Your task to perform on an android device: clear history in the chrome app Image 0: 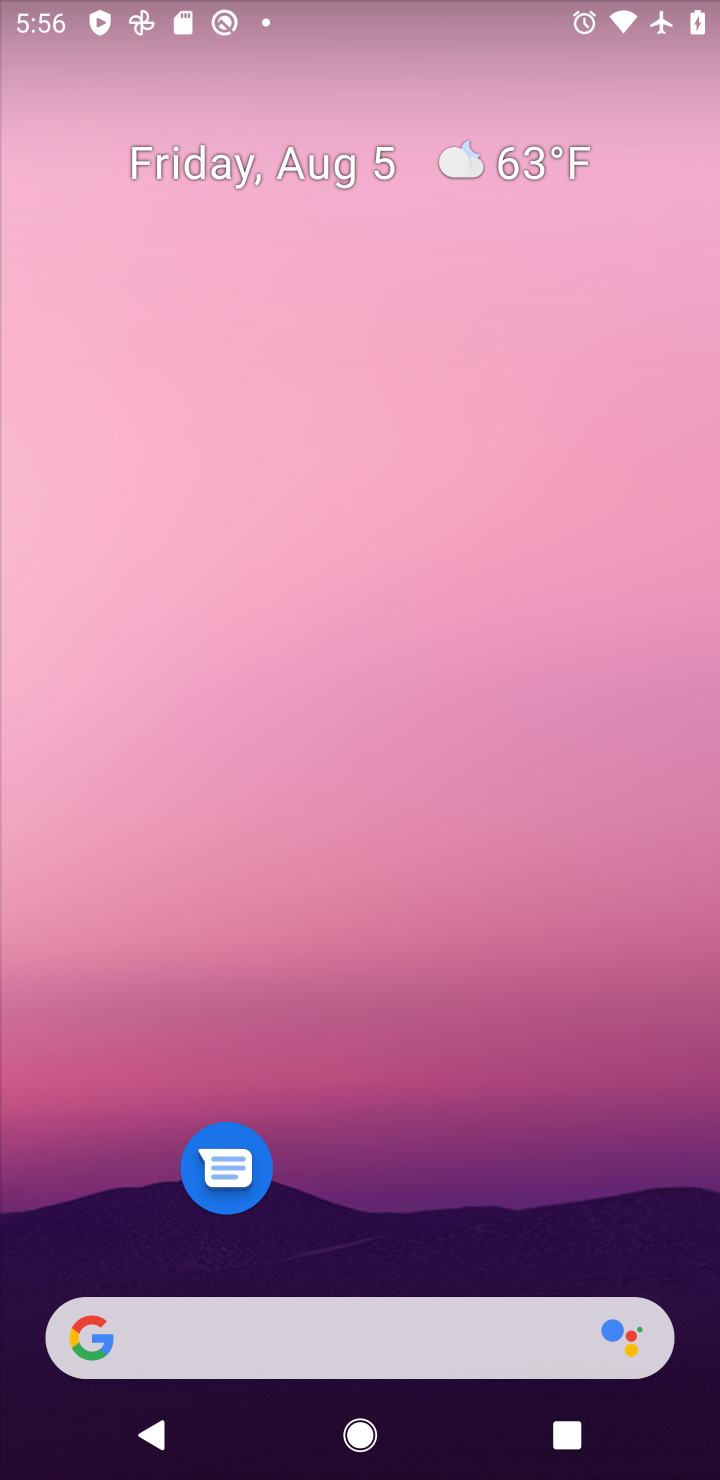
Step 0: press home button
Your task to perform on an android device: clear history in the chrome app Image 1: 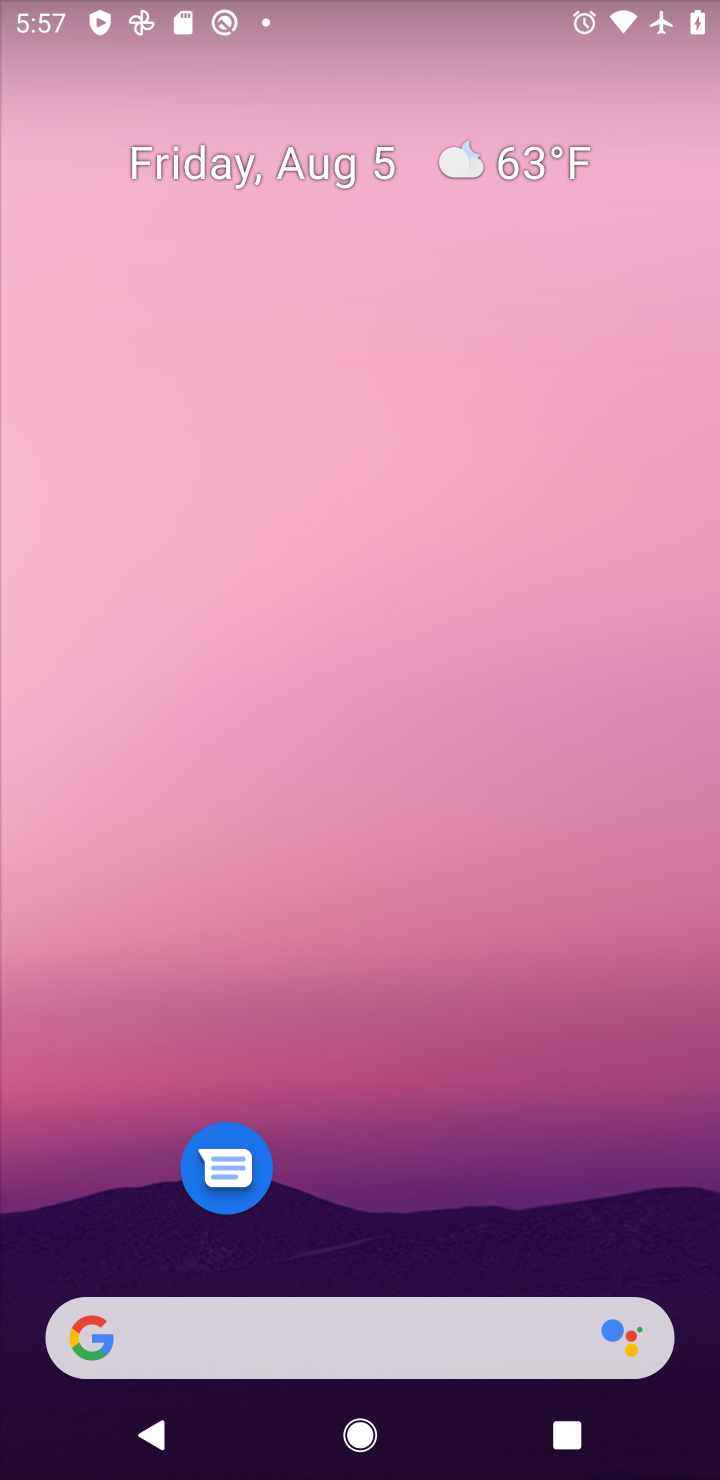
Step 1: drag from (394, 1116) to (407, 96)
Your task to perform on an android device: clear history in the chrome app Image 2: 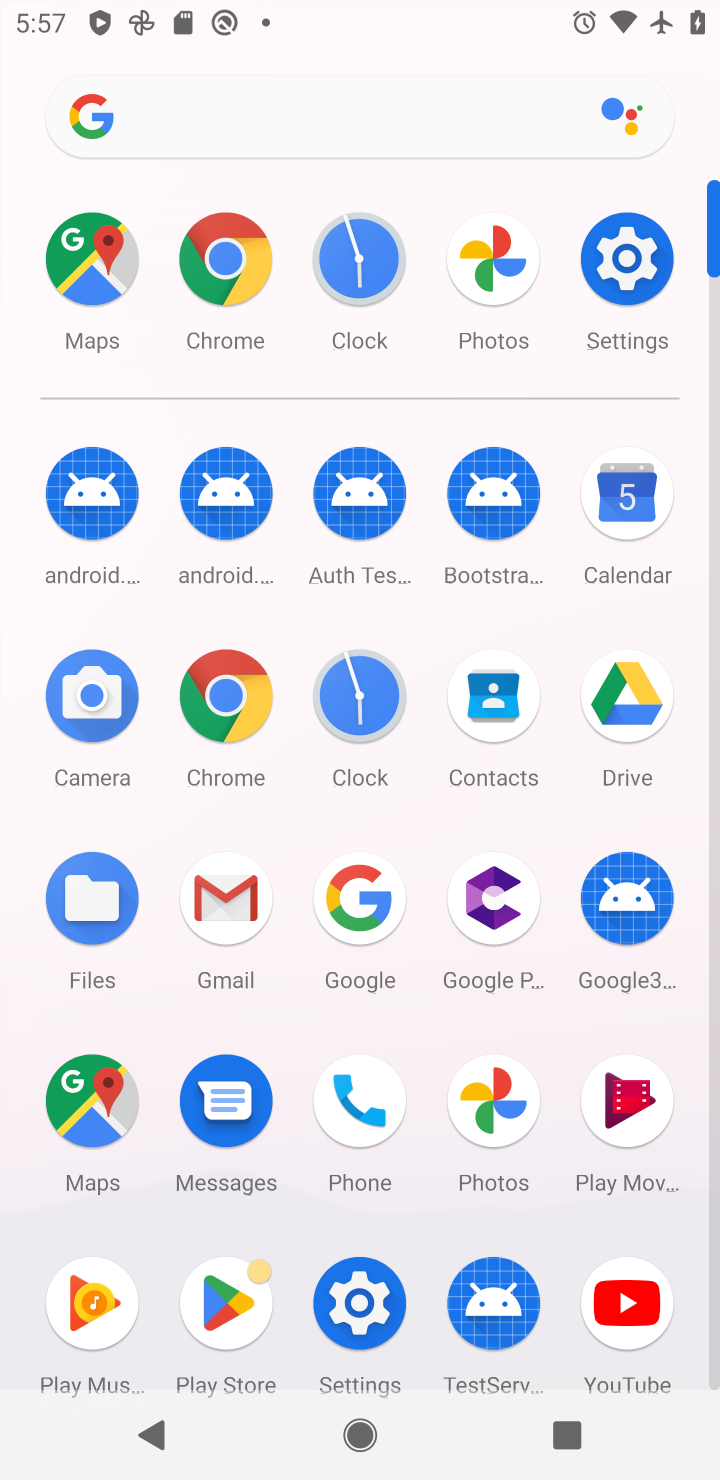
Step 2: click (231, 700)
Your task to perform on an android device: clear history in the chrome app Image 3: 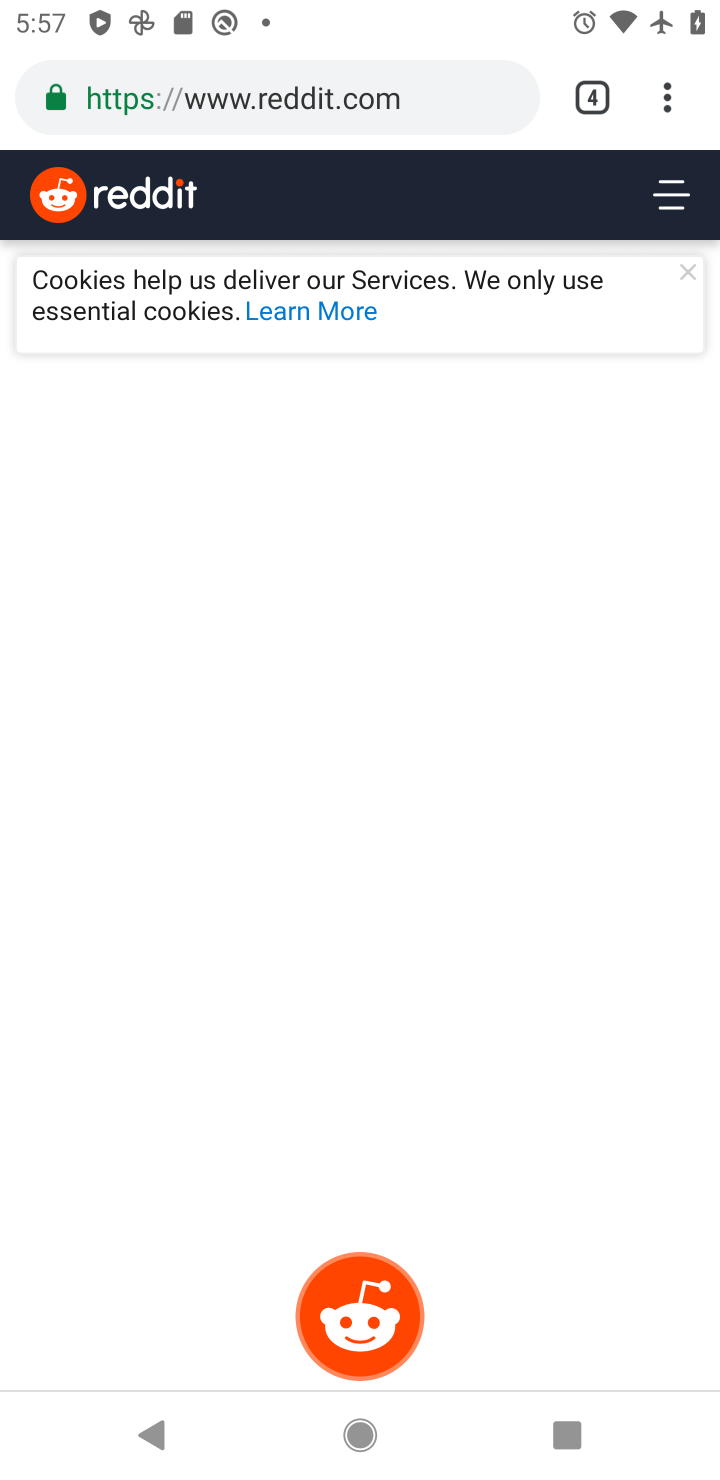
Step 3: drag from (665, 100) to (318, 555)
Your task to perform on an android device: clear history in the chrome app Image 4: 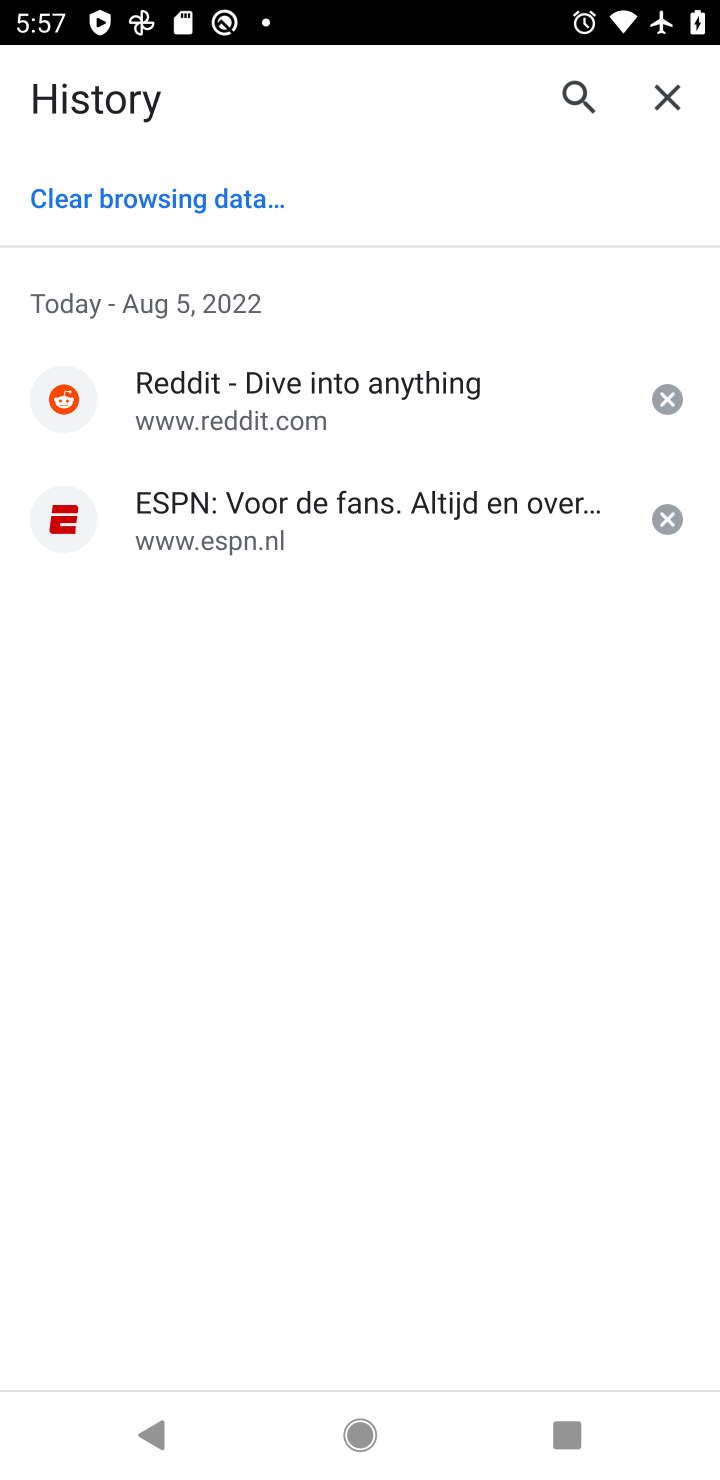
Step 4: click (157, 198)
Your task to perform on an android device: clear history in the chrome app Image 5: 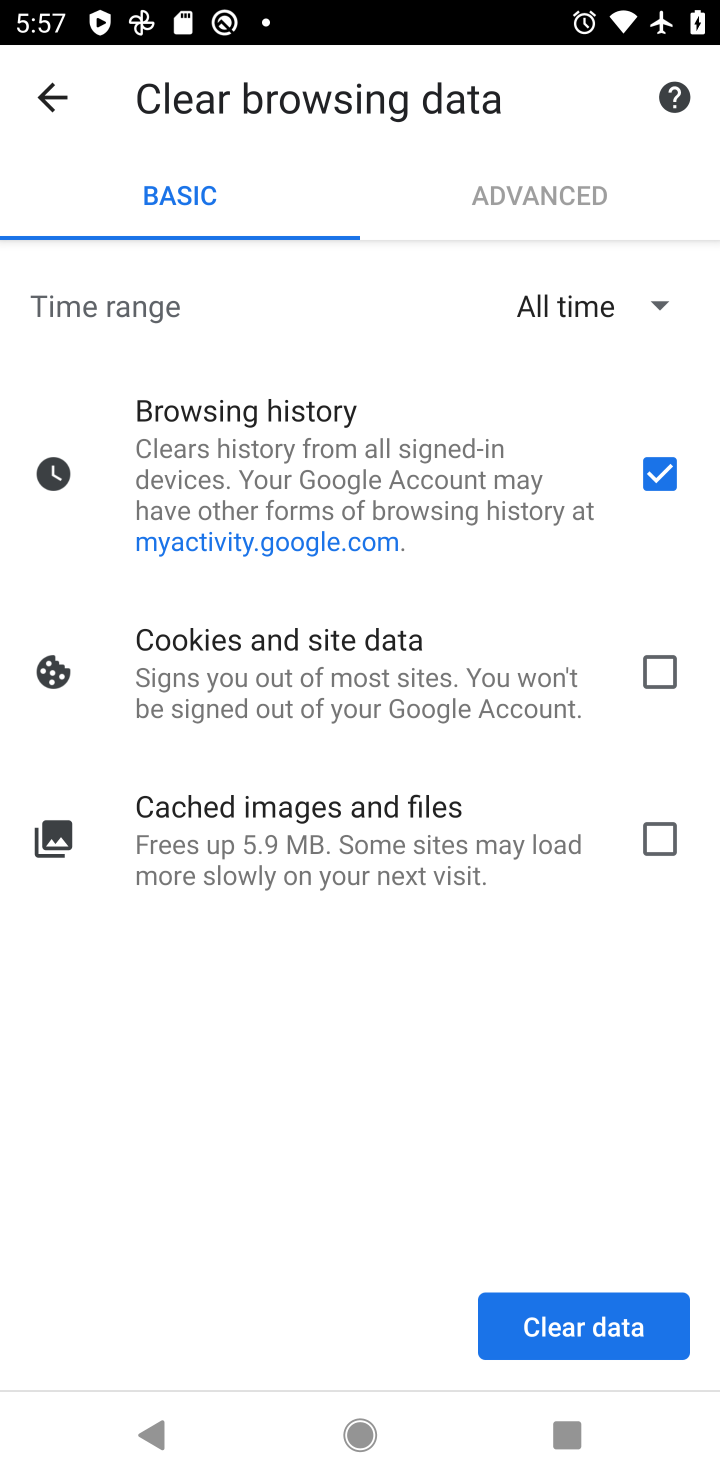
Step 5: click (663, 1318)
Your task to perform on an android device: clear history in the chrome app Image 6: 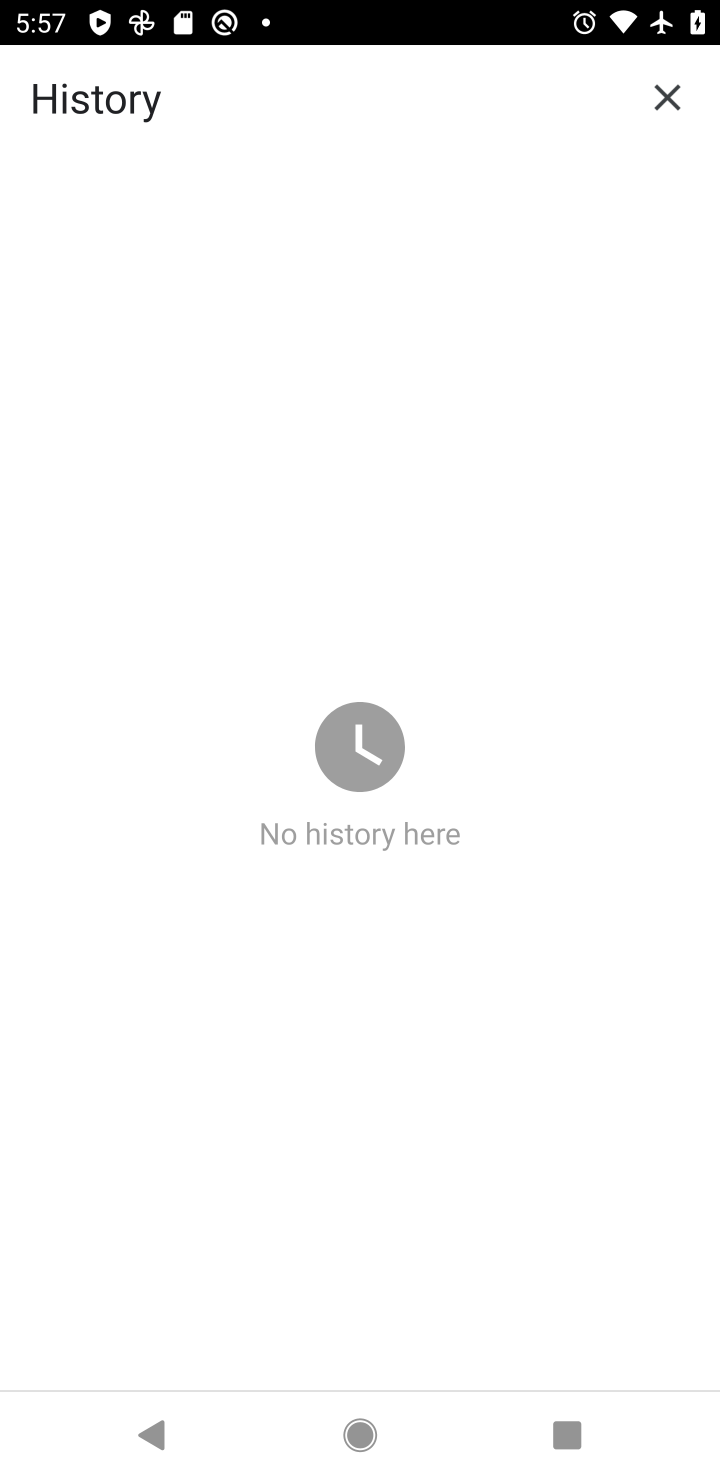
Step 6: task complete